Your task to perform on an android device: Open display settings Image 0: 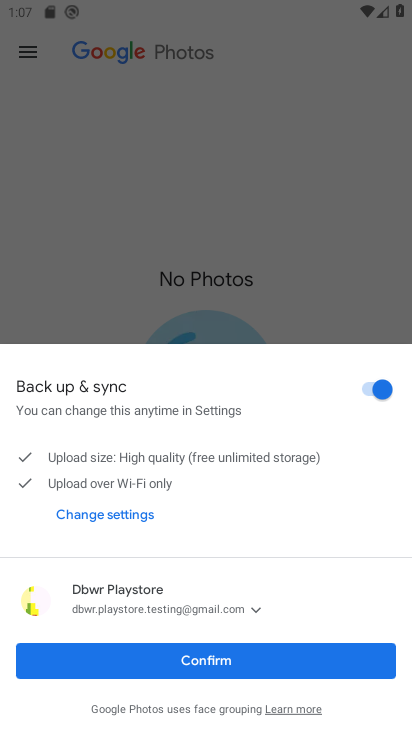
Step 0: click (281, 661)
Your task to perform on an android device: Open display settings Image 1: 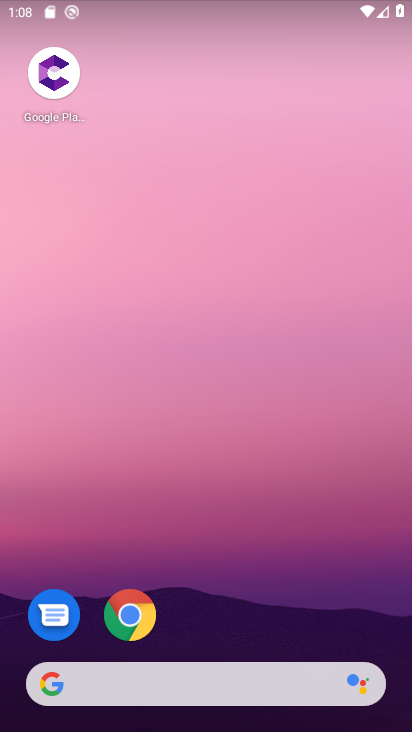
Step 1: drag from (299, 660) to (342, 200)
Your task to perform on an android device: Open display settings Image 2: 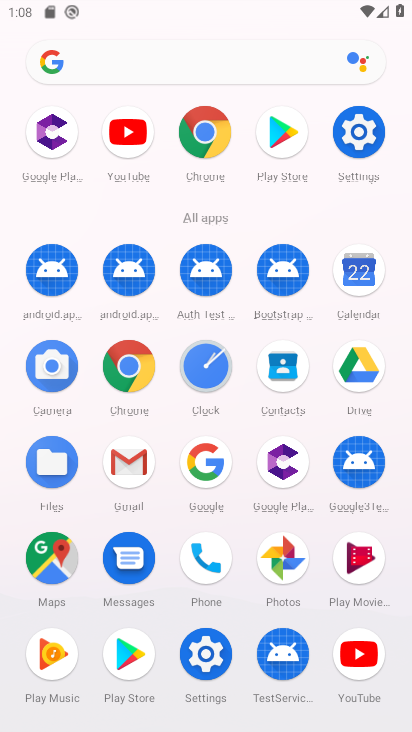
Step 2: click (365, 128)
Your task to perform on an android device: Open display settings Image 3: 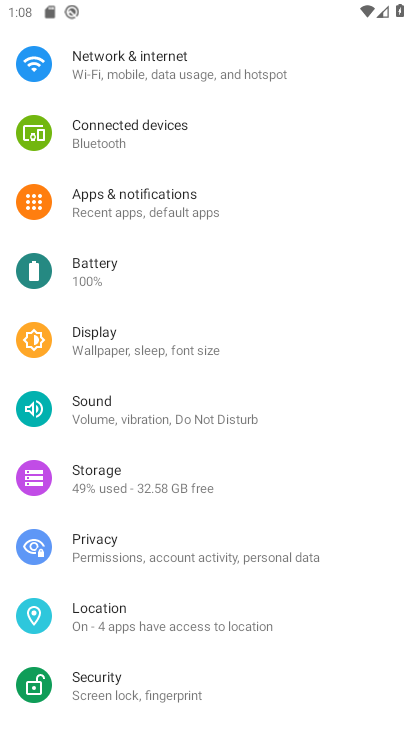
Step 3: click (149, 358)
Your task to perform on an android device: Open display settings Image 4: 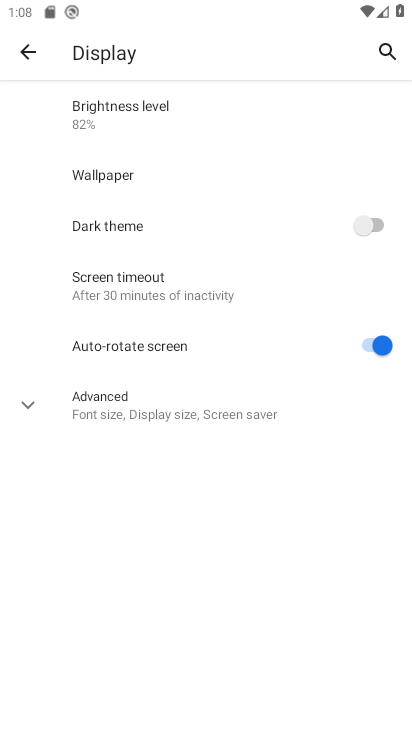
Step 4: task complete